Your task to perform on an android device: open a new tab in the chrome app Image 0: 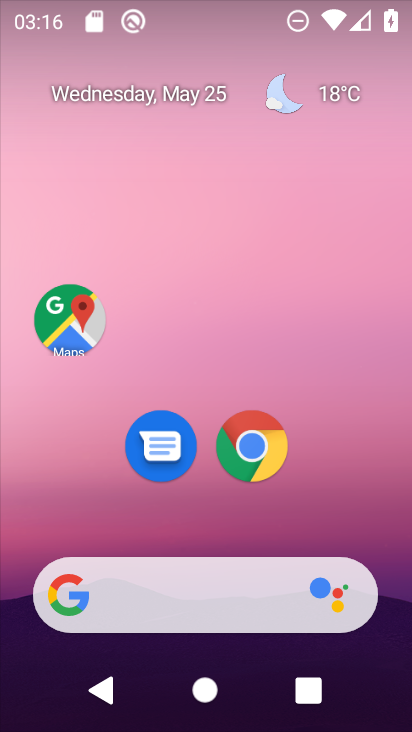
Step 0: drag from (239, 568) to (269, 101)
Your task to perform on an android device: open a new tab in the chrome app Image 1: 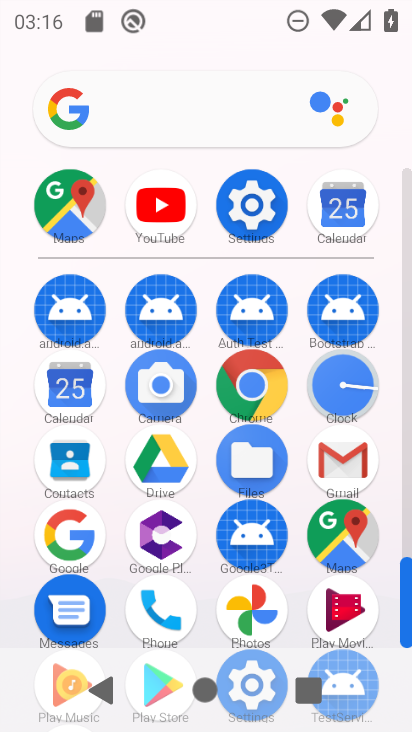
Step 1: click (240, 381)
Your task to perform on an android device: open a new tab in the chrome app Image 2: 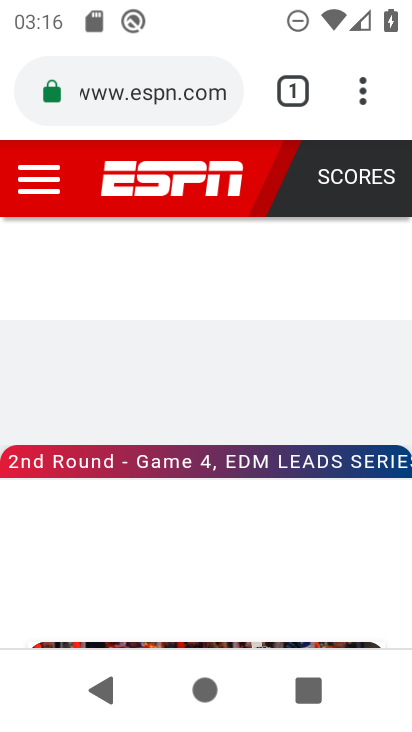
Step 2: drag from (369, 95) to (66, 183)
Your task to perform on an android device: open a new tab in the chrome app Image 3: 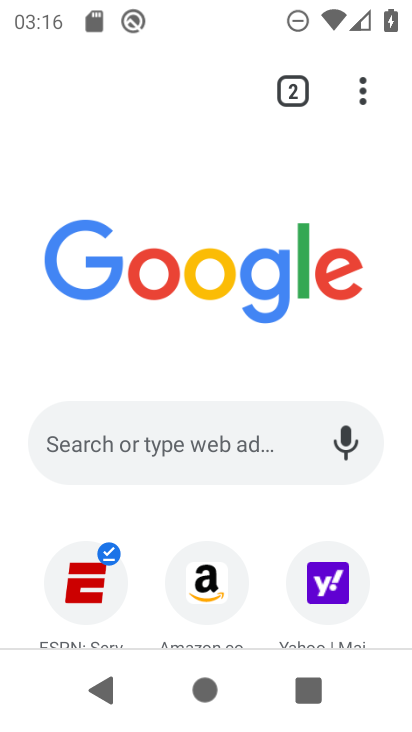
Step 3: click (362, 95)
Your task to perform on an android device: open a new tab in the chrome app Image 4: 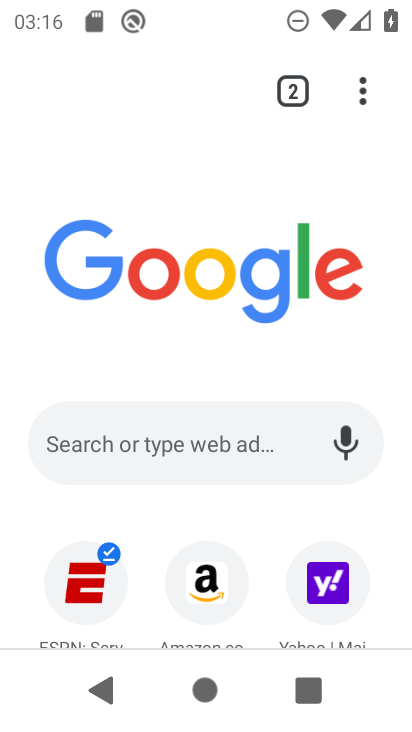
Step 4: drag from (362, 95) to (133, 185)
Your task to perform on an android device: open a new tab in the chrome app Image 5: 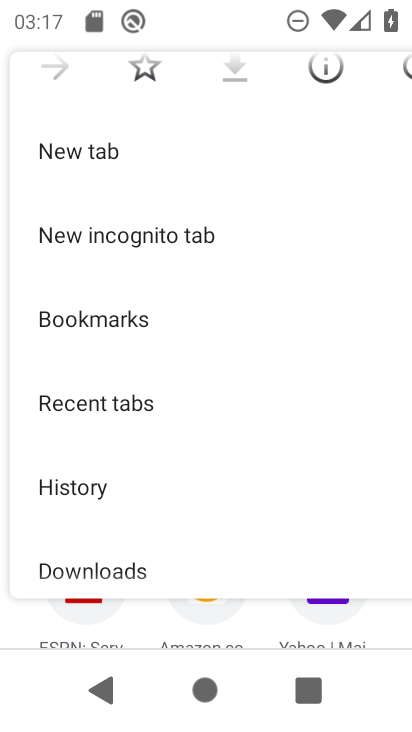
Step 5: click (110, 162)
Your task to perform on an android device: open a new tab in the chrome app Image 6: 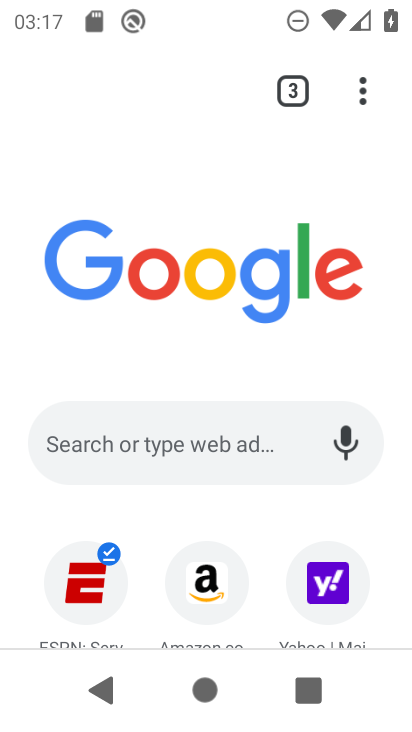
Step 6: task complete